Your task to perform on an android device: turn off data saver in the chrome app Image 0: 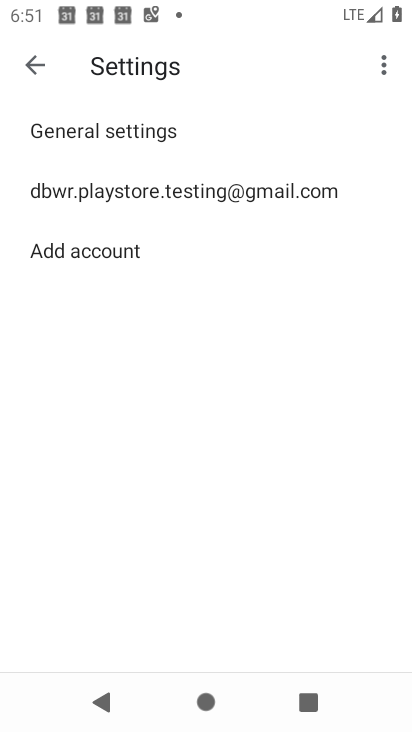
Step 0: press home button
Your task to perform on an android device: turn off data saver in the chrome app Image 1: 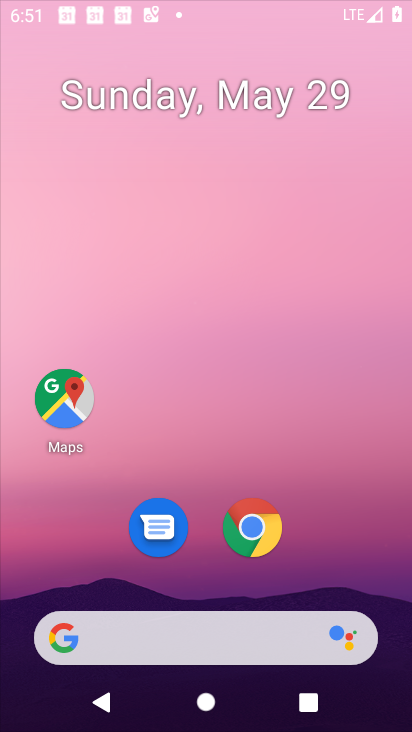
Step 1: drag from (352, 613) to (274, 24)
Your task to perform on an android device: turn off data saver in the chrome app Image 2: 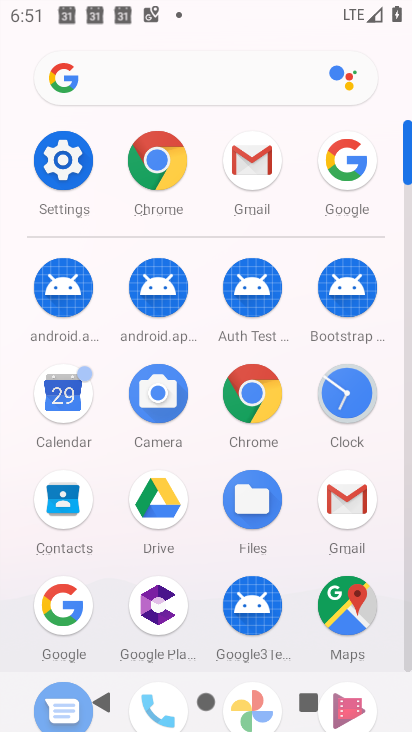
Step 2: click (183, 176)
Your task to perform on an android device: turn off data saver in the chrome app Image 3: 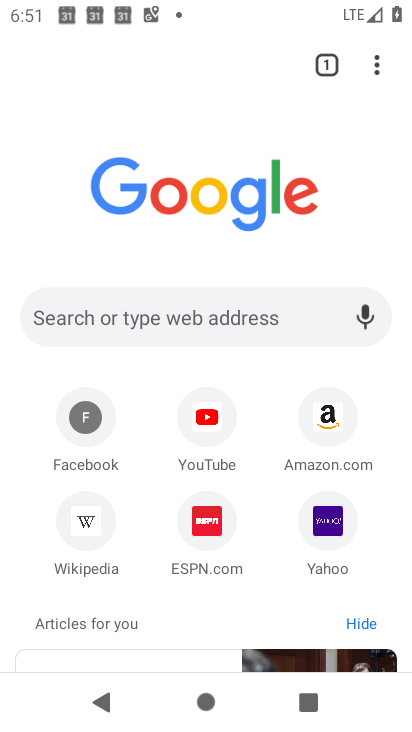
Step 3: click (382, 69)
Your task to perform on an android device: turn off data saver in the chrome app Image 4: 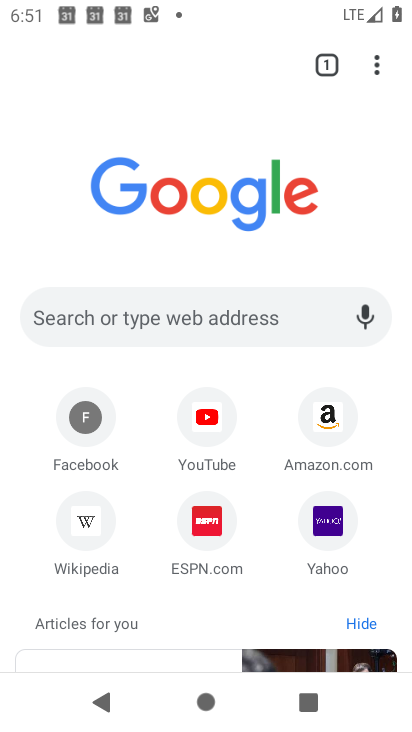
Step 4: click (375, 47)
Your task to perform on an android device: turn off data saver in the chrome app Image 5: 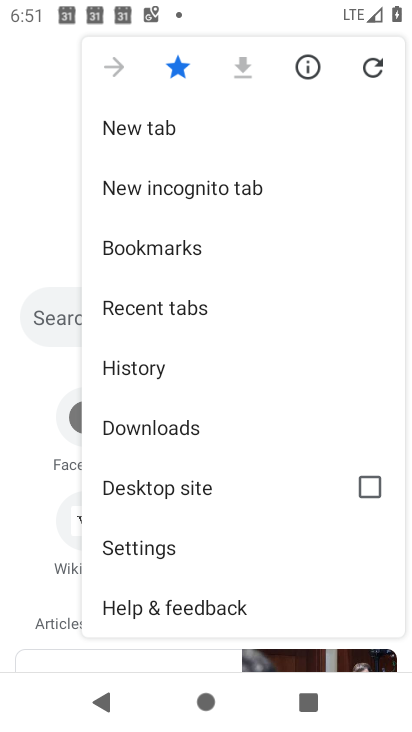
Step 5: click (142, 556)
Your task to perform on an android device: turn off data saver in the chrome app Image 6: 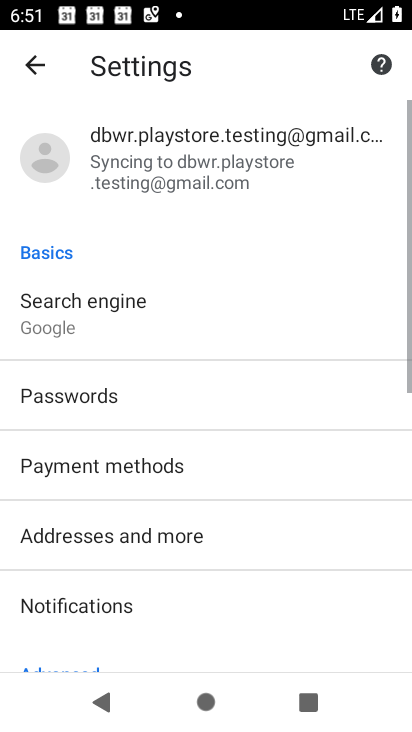
Step 6: drag from (155, 573) to (223, 110)
Your task to perform on an android device: turn off data saver in the chrome app Image 7: 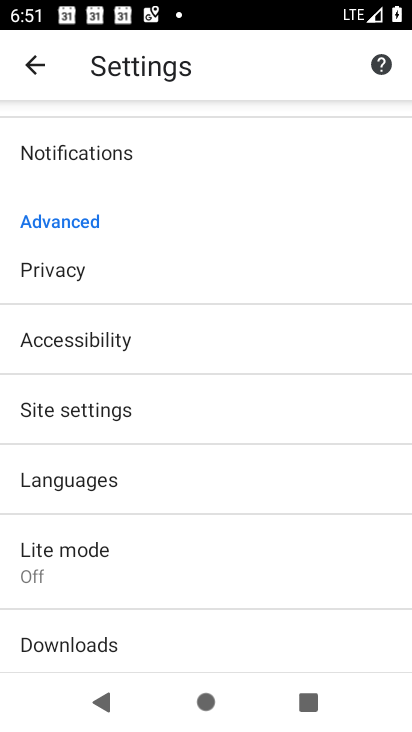
Step 7: click (146, 564)
Your task to perform on an android device: turn off data saver in the chrome app Image 8: 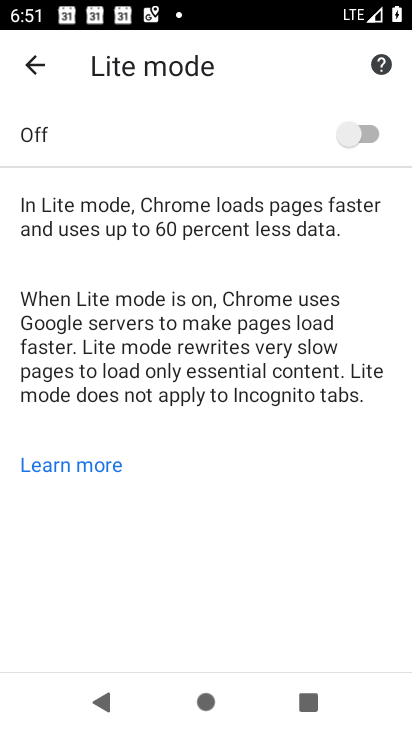
Step 8: task complete